Your task to perform on an android device: toggle notification dots Image 0: 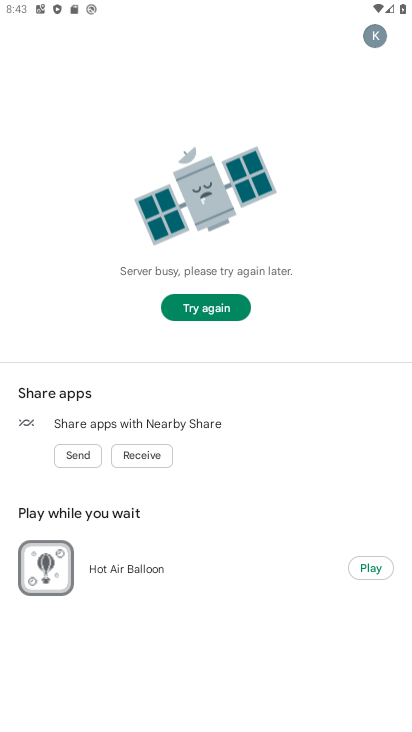
Step 0: press home button
Your task to perform on an android device: toggle notification dots Image 1: 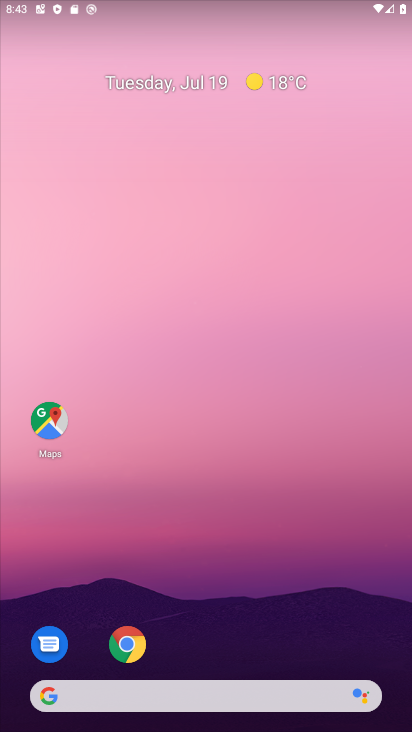
Step 1: drag from (224, 689) to (230, 189)
Your task to perform on an android device: toggle notification dots Image 2: 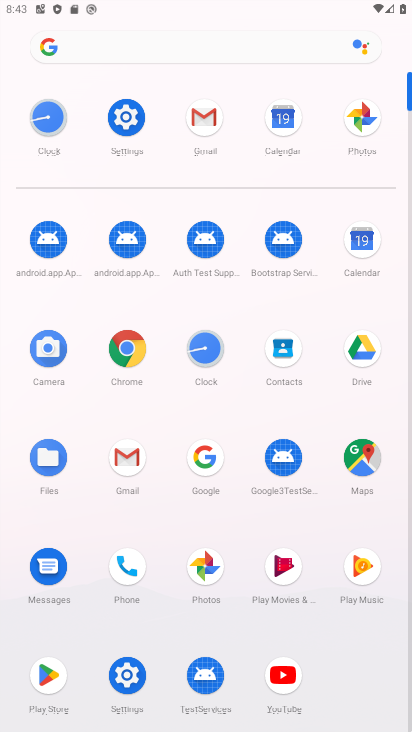
Step 2: click (129, 120)
Your task to perform on an android device: toggle notification dots Image 3: 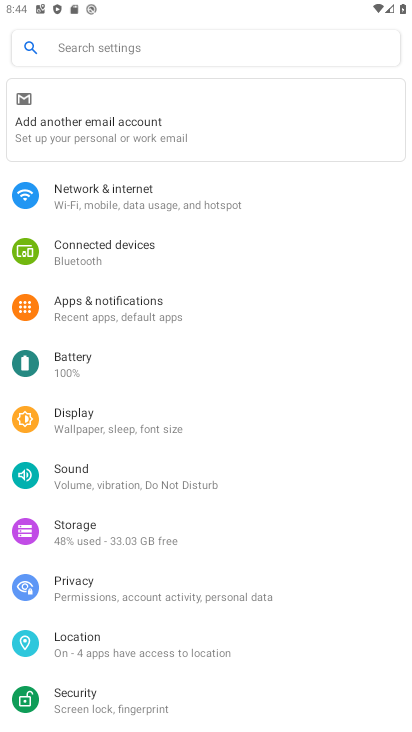
Step 3: click (115, 313)
Your task to perform on an android device: toggle notification dots Image 4: 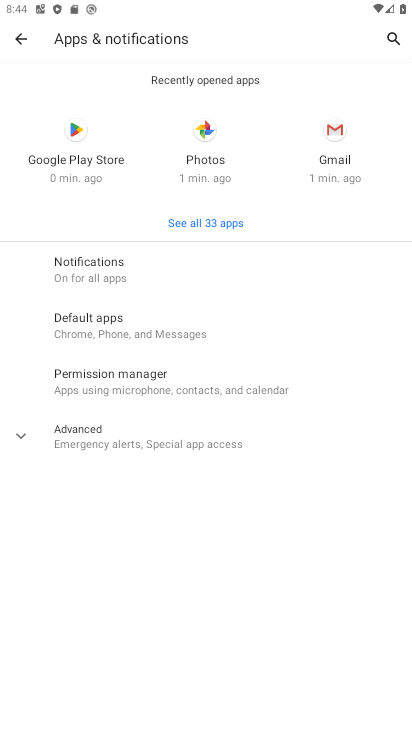
Step 4: click (83, 271)
Your task to perform on an android device: toggle notification dots Image 5: 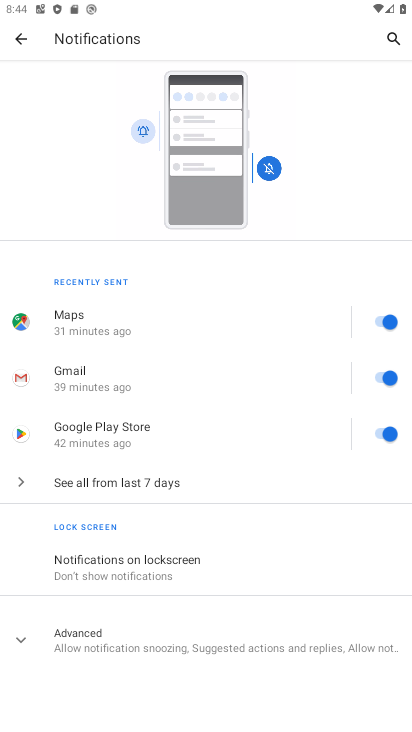
Step 5: click (102, 633)
Your task to perform on an android device: toggle notification dots Image 6: 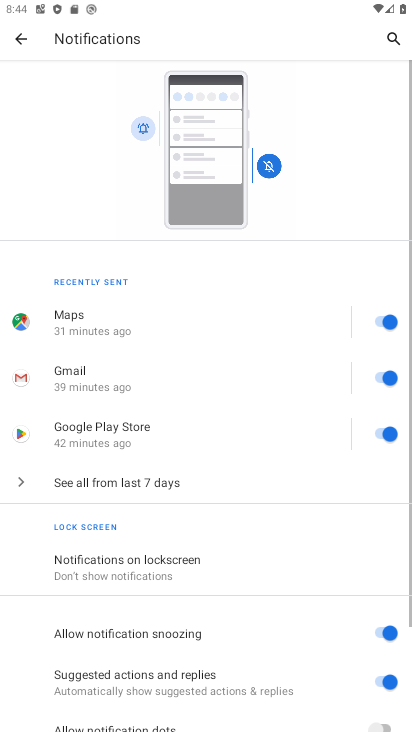
Step 6: task complete